Your task to perform on an android device: Open sound settings Image 0: 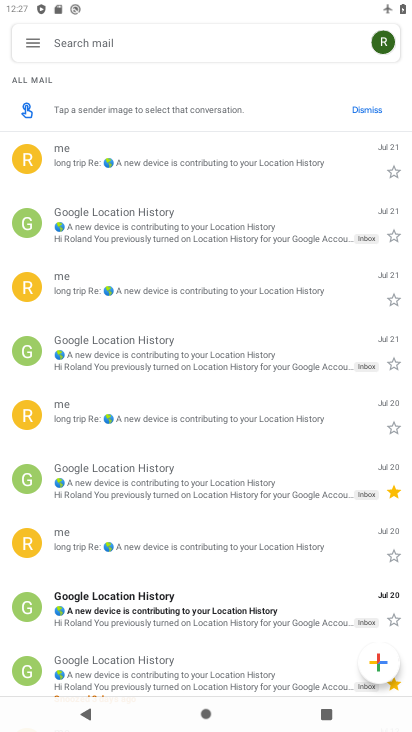
Step 0: press home button
Your task to perform on an android device: Open sound settings Image 1: 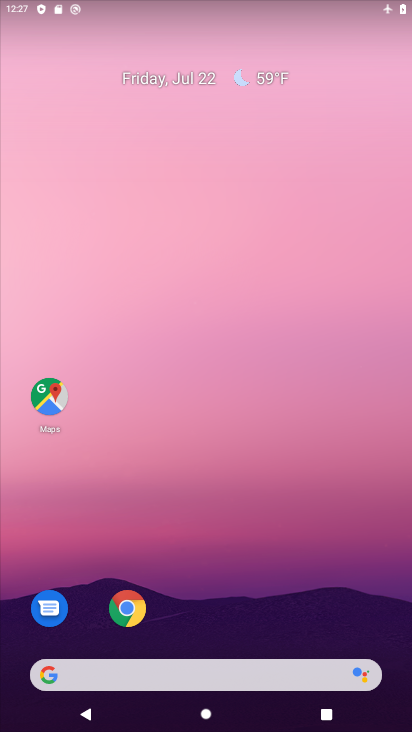
Step 1: drag from (191, 623) to (173, 17)
Your task to perform on an android device: Open sound settings Image 2: 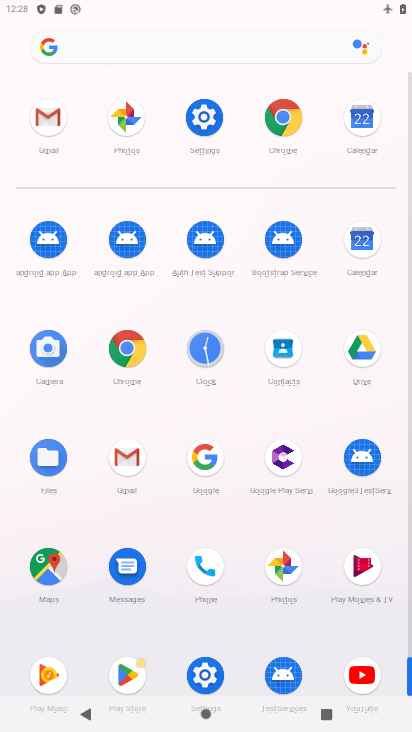
Step 2: click (208, 667)
Your task to perform on an android device: Open sound settings Image 3: 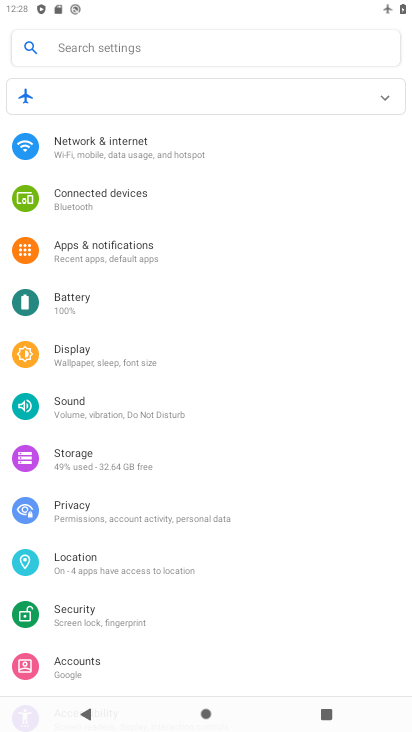
Step 3: click (72, 419)
Your task to perform on an android device: Open sound settings Image 4: 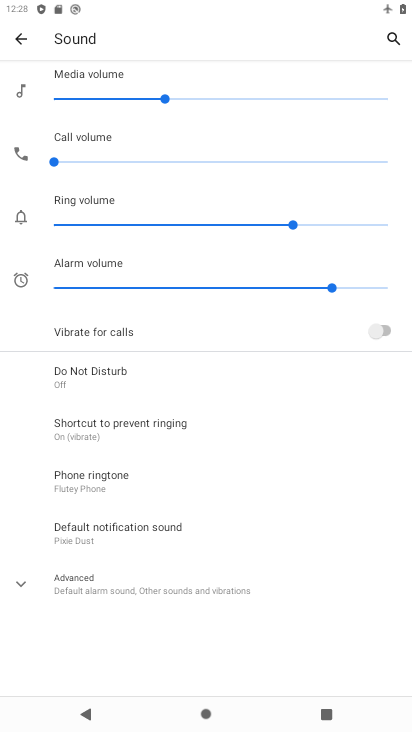
Step 4: task complete